Your task to perform on an android device: clear history in the chrome app Image 0: 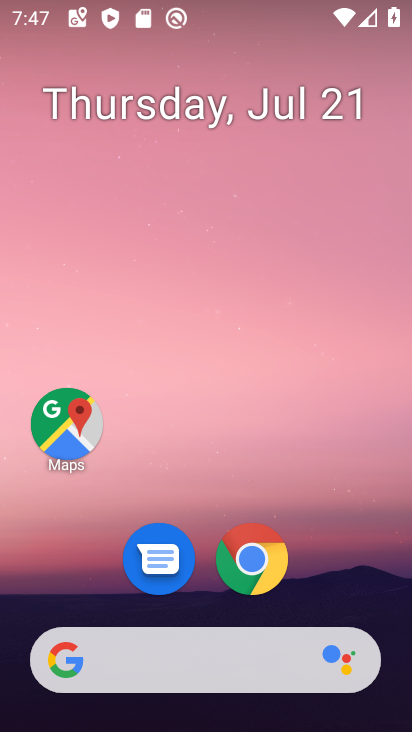
Step 0: drag from (212, 692) to (330, 222)
Your task to perform on an android device: clear history in the chrome app Image 1: 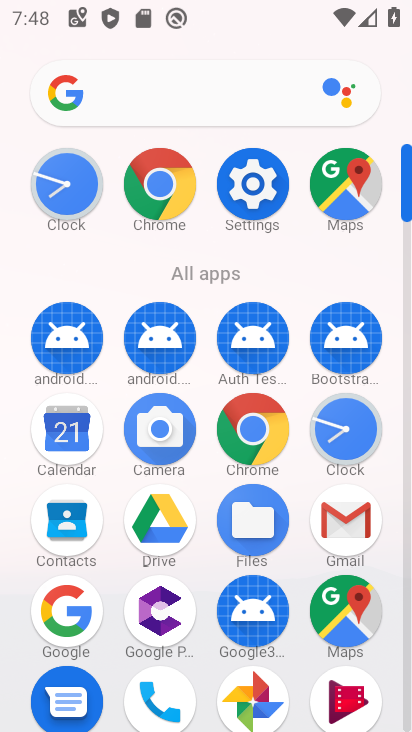
Step 1: click (171, 201)
Your task to perform on an android device: clear history in the chrome app Image 2: 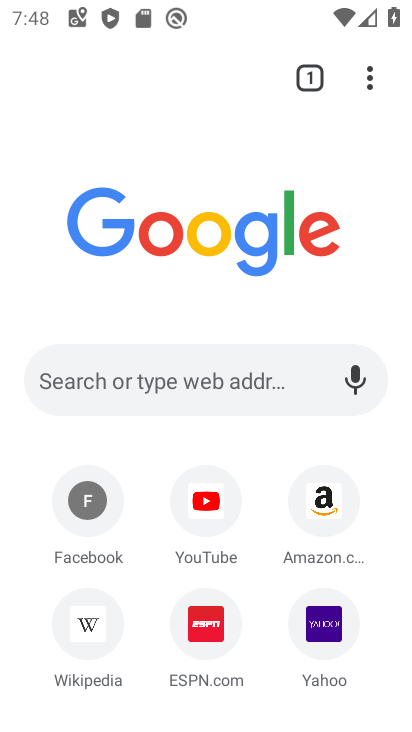
Step 2: click (372, 85)
Your task to perform on an android device: clear history in the chrome app Image 3: 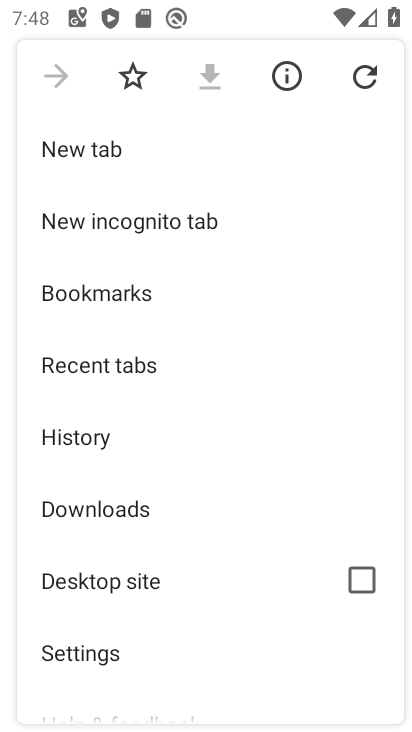
Step 3: click (97, 453)
Your task to perform on an android device: clear history in the chrome app Image 4: 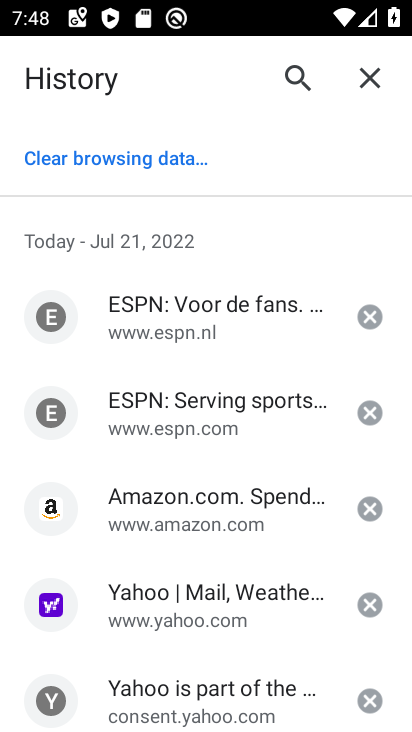
Step 4: click (112, 155)
Your task to perform on an android device: clear history in the chrome app Image 5: 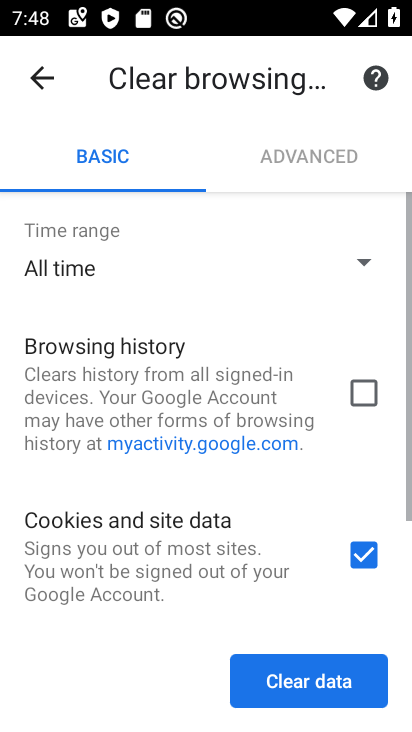
Step 5: click (356, 565)
Your task to perform on an android device: clear history in the chrome app Image 6: 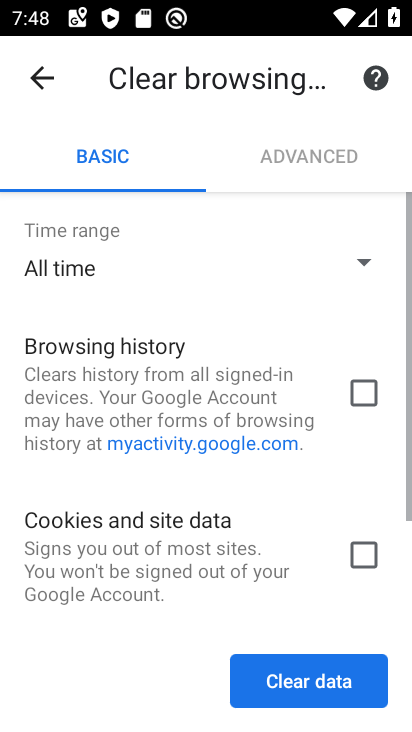
Step 6: click (371, 390)
Your task to perform on an android device: clear history in the chrome app Image 7: 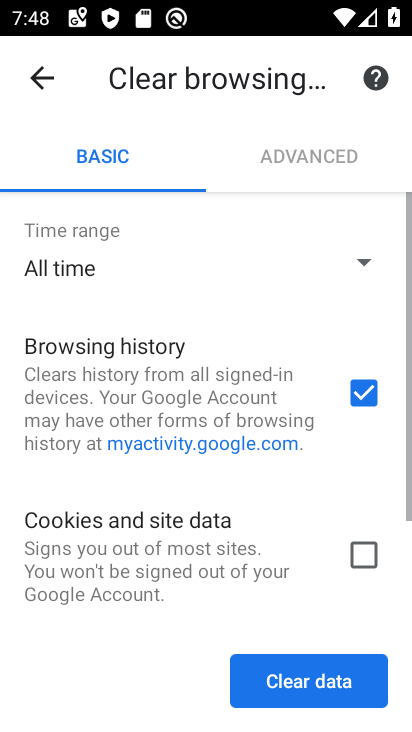
Step 7: click (322, 689)
Your task to perform on an android device: clear history in the chrome app Image 8: 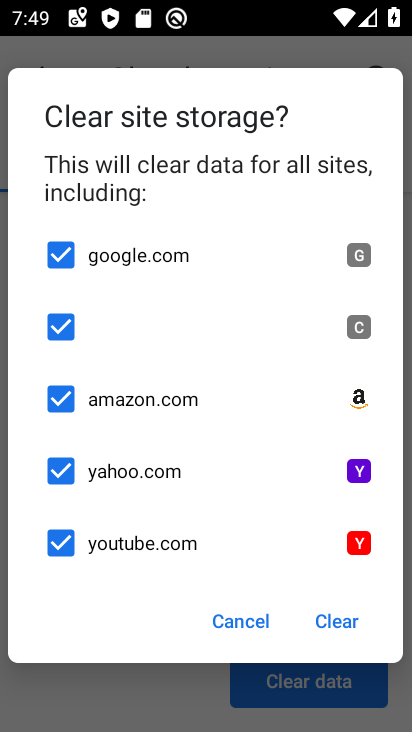
Step 8: click (337, 637)
Your task to perform on an android device: clear history in the chrome app Image 9: 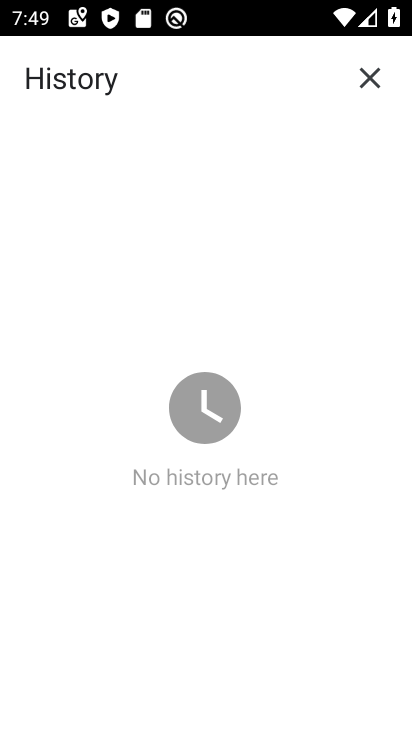
Step 9: task complete